Your task to perform on an android device: Go to ESPN.com Image 0: 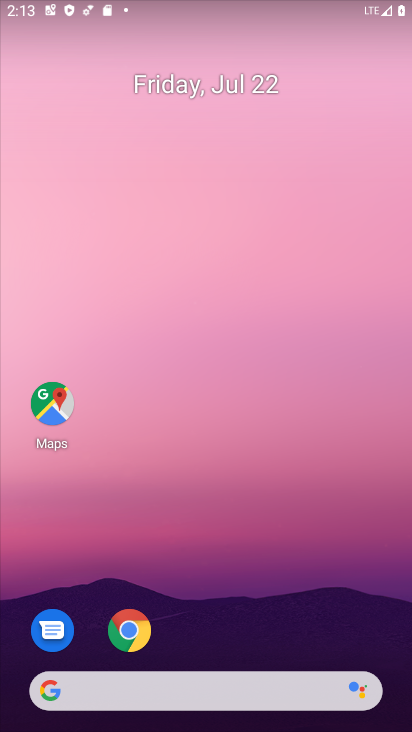
Step 0: click (125, 635)
Your task to perform on an android device: Go to ESPN.com Image 1: 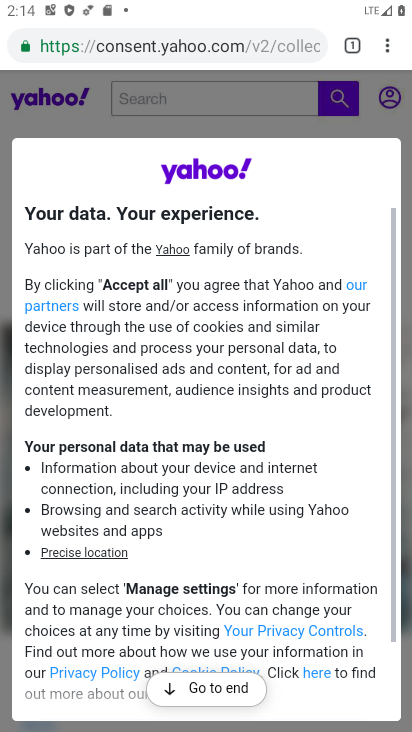
Step 1: click (350, 40)
Your task to perform on an android device: Go to ESPN.com Image 2: 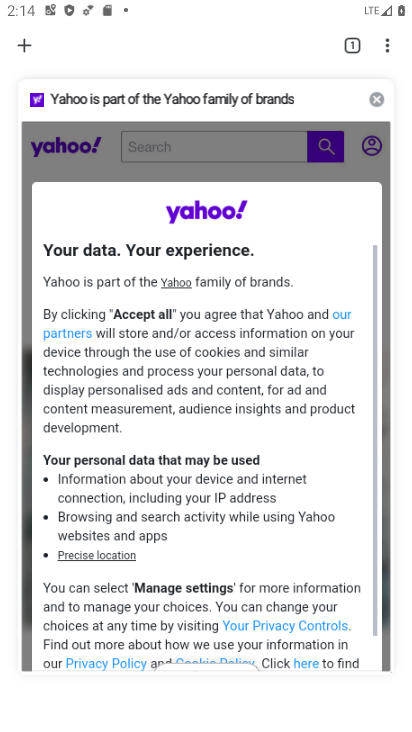
Step 2: click (10, 53)
Your task to perform on an android device: Go to ESPN.com Image 3: 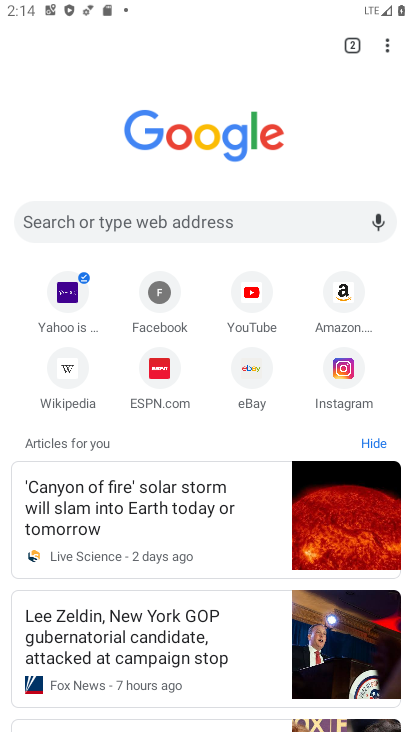
Step 3: click (167, 379)
Your task to perform on an android device: Go to ESPN.com Image 4: 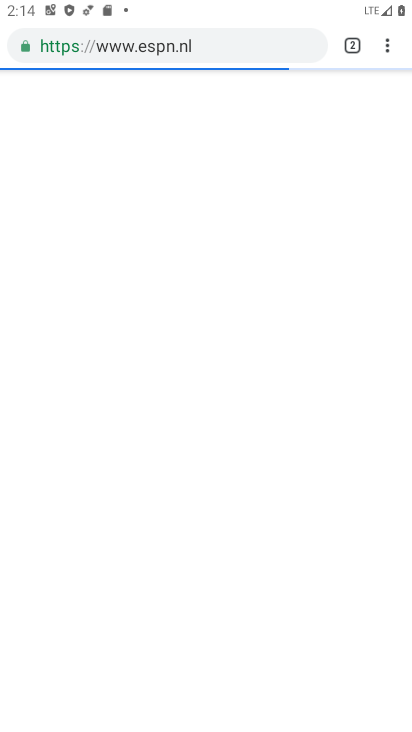
Step 4: task complete